Your task to perform on an android device: remove spam from my inbox in the gmail app Image 0: 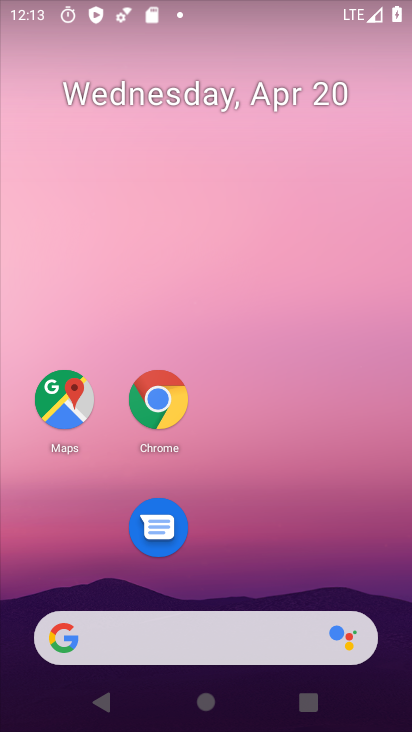
Step 0: click (204, 201)
Your task to perform on an android device: remove spam from my inbox in the gmail app Image 1: 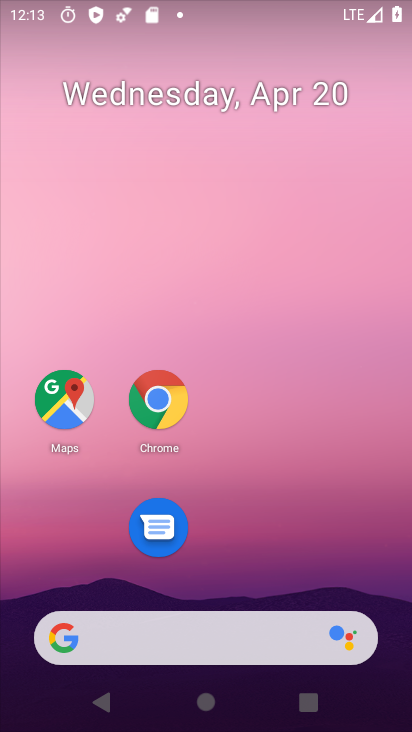
Step 1: click (244, 220)
Your task to perform on an android device: remove spam from my inbox in the gmail app Image 2: 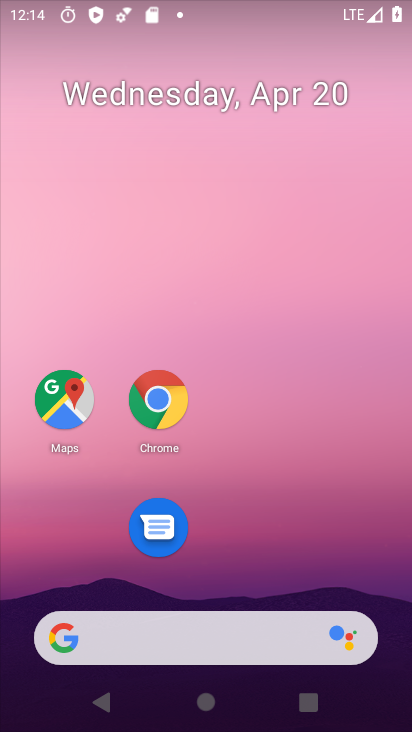
Step 2: drag from (253, 633) to (259, 93)
Your task to perform on an android device: remove spam from my inbox in the gmail app Image 3: 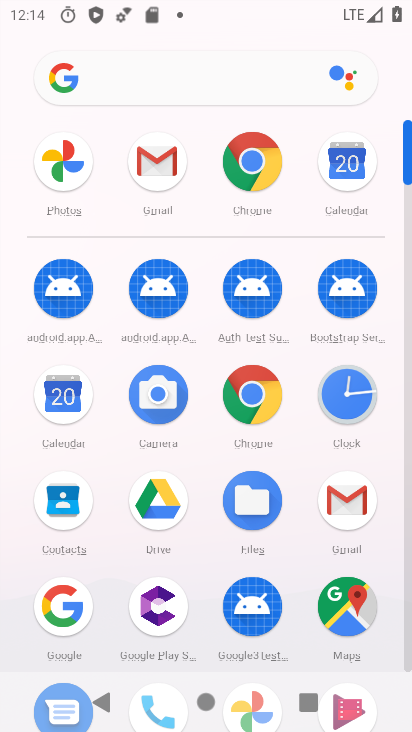
Step 3: click (362, 494)
Your task to perform on an android device: remove spam from my inbox in the gmail app Image 4: 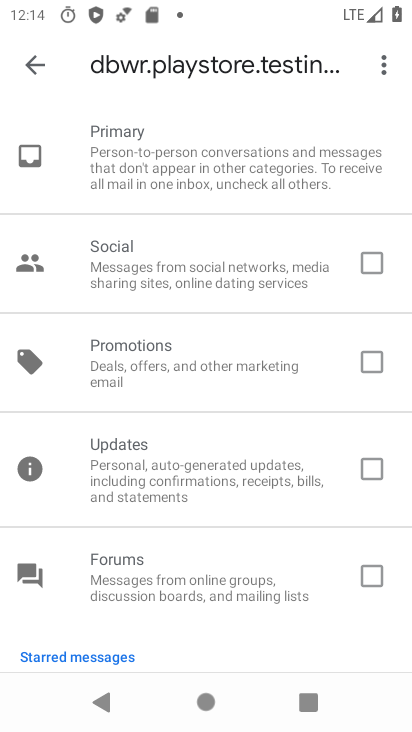
Step 4: click (38, 63)
Your task to perform on an android device: remove spam from my inbox in the gmail app Image 5: 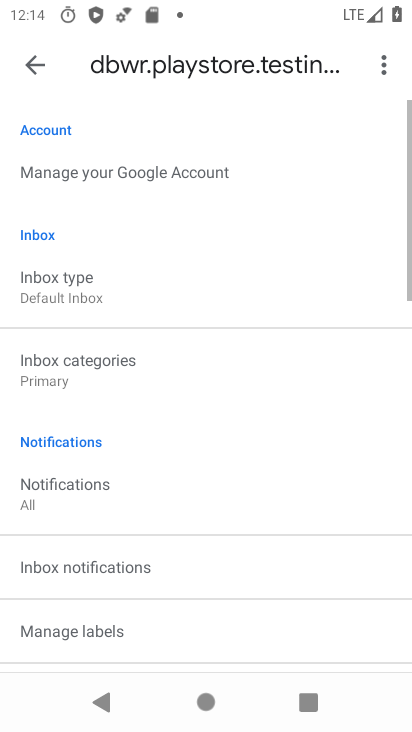
Step 5: click (38, 63)
Your task to perform on an android device: remove spam from my inbox in the gmail app Image 6: 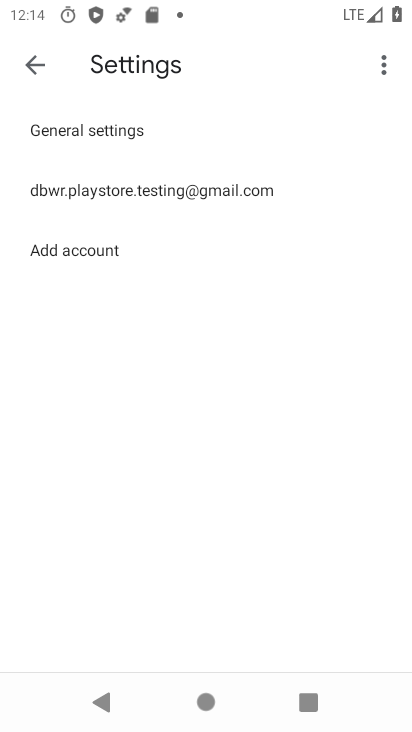
Step 6: click (38, 63)
Your task to perform on an android device: remove spam from my inbox in the gmail app Image 7: 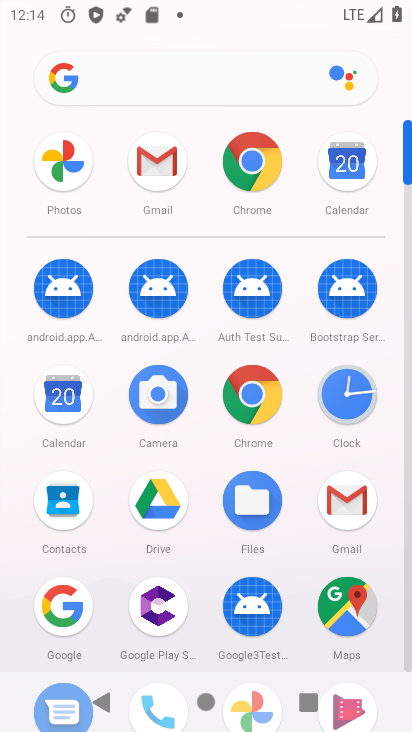
Step 7: click (155, 182)
Your task to perform on an android device: remove spam from my inbox in the gmail app Image 8: 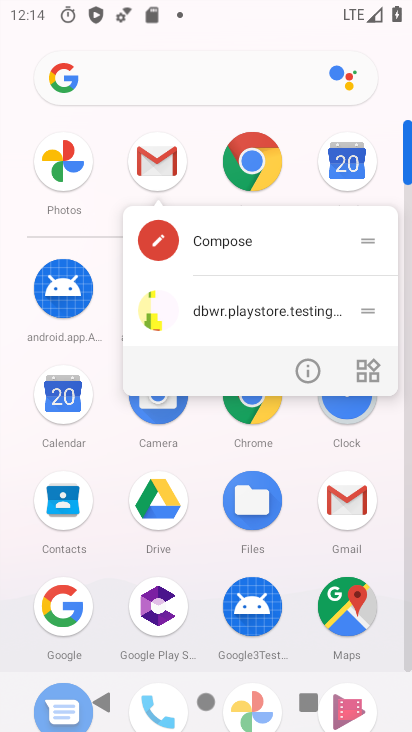
Step 8: click (166, 170)
Your task to perform on an android device: remove spam from my inbox in the gmail app Image 9: 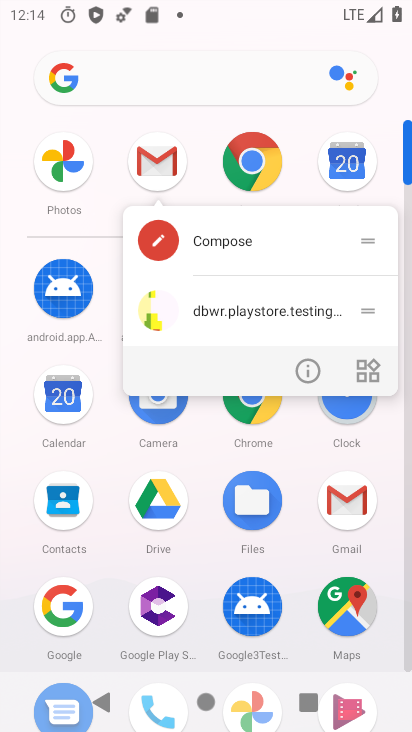
Step 9: click (164, 171)
Your task to perform on an android device: remove spam from my inbox in the gmail app Image 10: 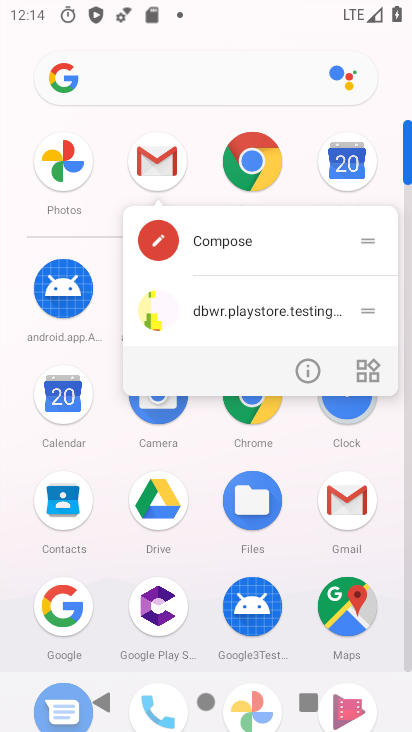
Step 10: click (157, 165)
Your task to perform on an android device: remove spam from my inbox in the gmail app Image 11: 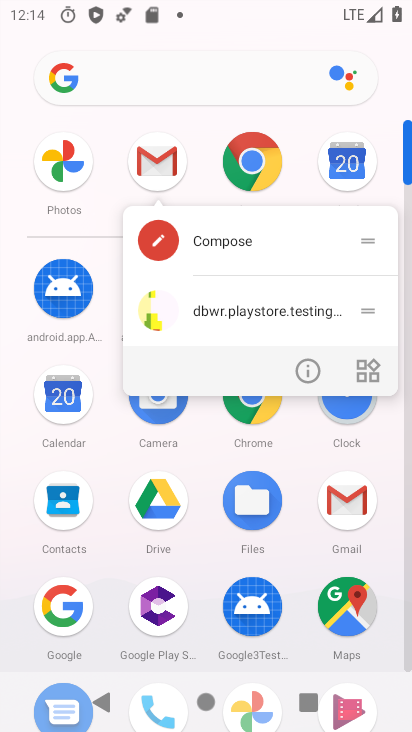
Step 11: click (157, 165)
Your task to perform on an android device: remove spam from my inbox in the gmail app Image 12: 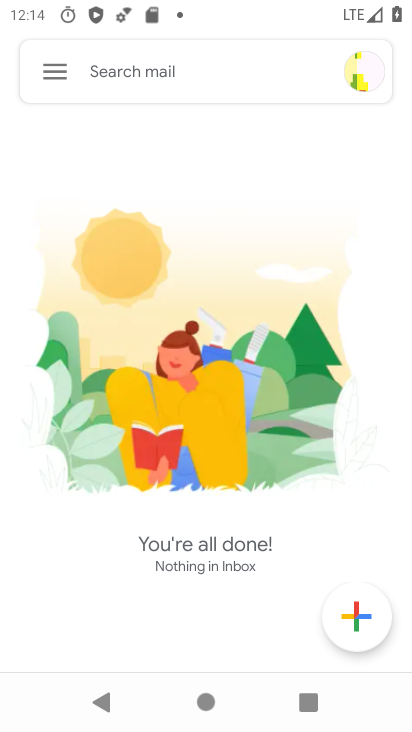
Step 12: click (64, 77)
Your task to perform on an android device: remove spam from my inbox in the gmail app Image 13: 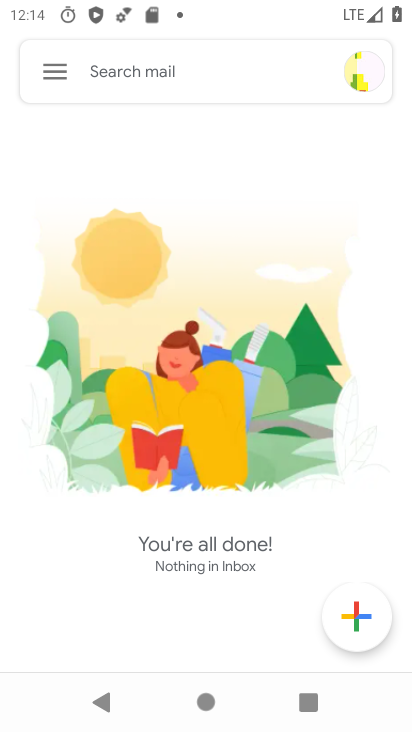
Step 13: click (64, 77)
Your task to perform on an android device: remove spam from my inbox in the gmail app Image 14: 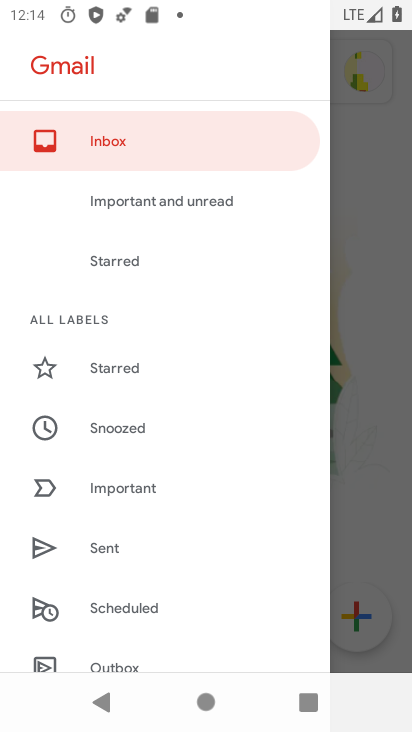
Step 14: drag from (137, 561) to (217, 137)
Your task to perform on an android device: remove spam from my inbox in the gmail app Image 15: 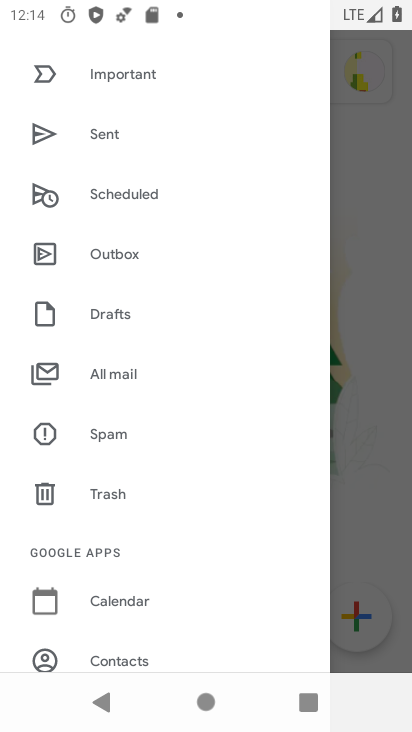
Step 15: click (117, 446)
Your task to perform on an android device: remove spam from my inbox in the gmail app Image 16: 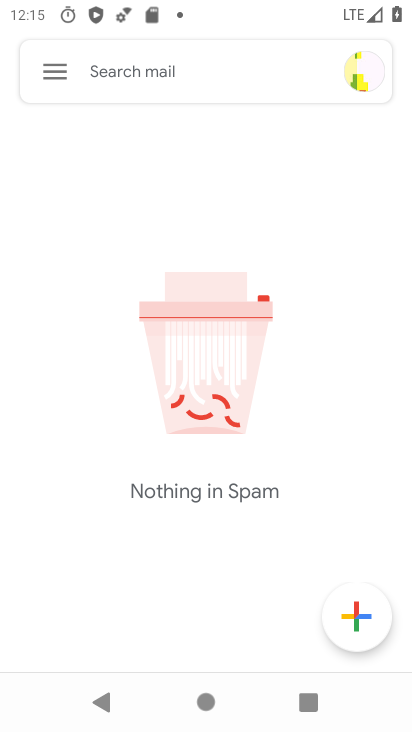
Step 16: task complete